Your task to perform on an android device: all mails in gmail Image 0: 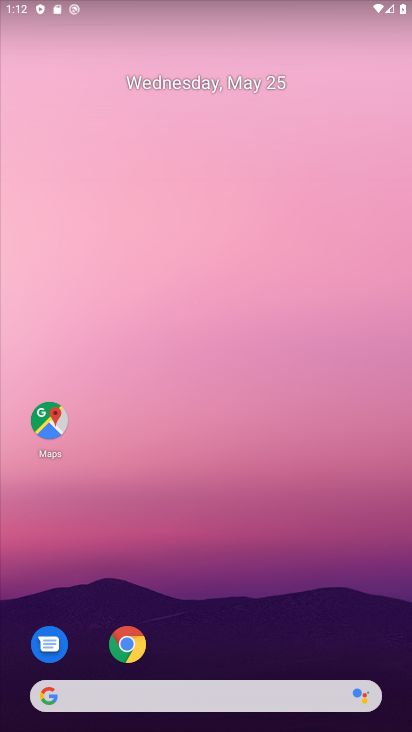
Step 0: drag from (181, 614) to (208, 10)
Your task to perform on an android device: all mails in gmail Image 1: 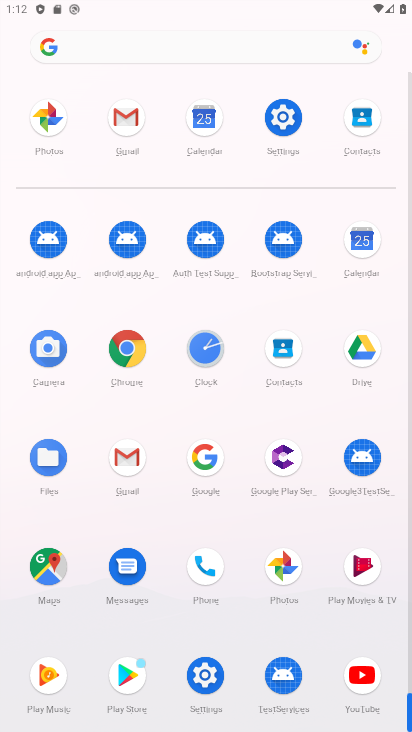
Step 1: click (126, 138)
Your task to perform on an android device: all mails in gmail Image 2: 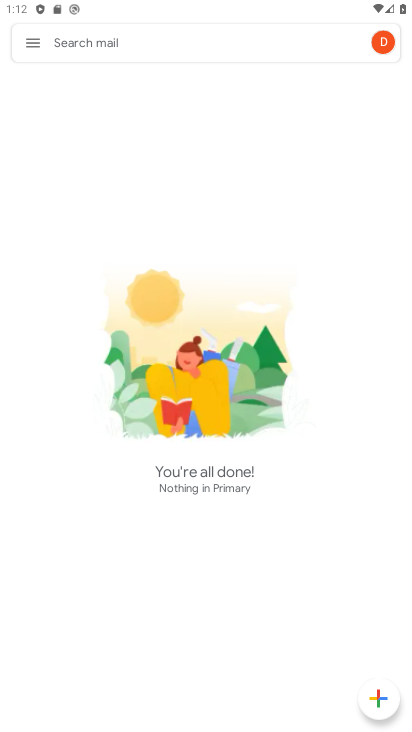
Step 2: click (36, 49)
Your task to perform on an android device: all mails in gmail Image 3: 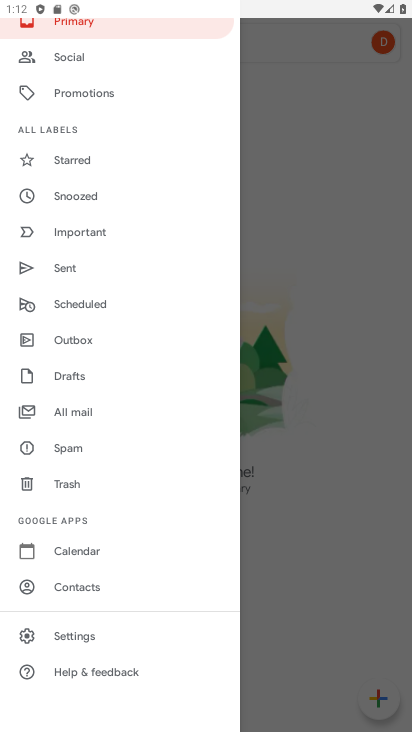
Step 3: click (68, 412)
Your task to perform on an android device: all mails in gmail Image 4: 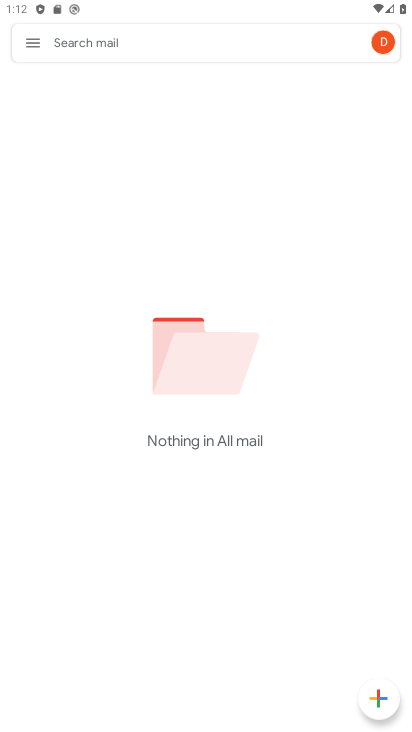
Step 4: task complete